Your task to perform on an android device: What's the weather going to be this weekend? Image 0: 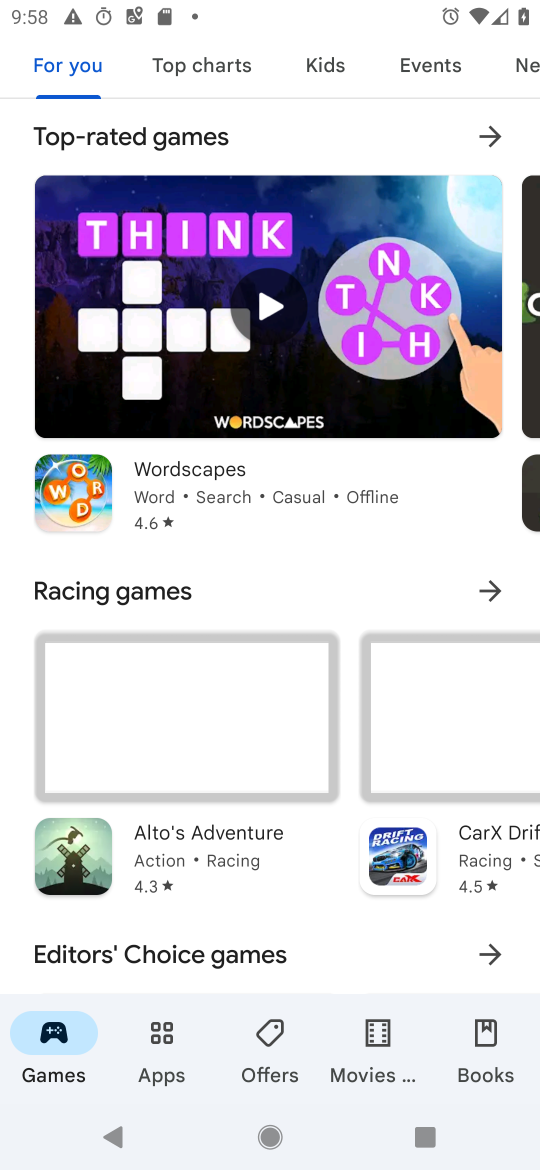
Step 0: press home button
Your task to perform on an android device: What's the weather going to be this weekend? Image 1: 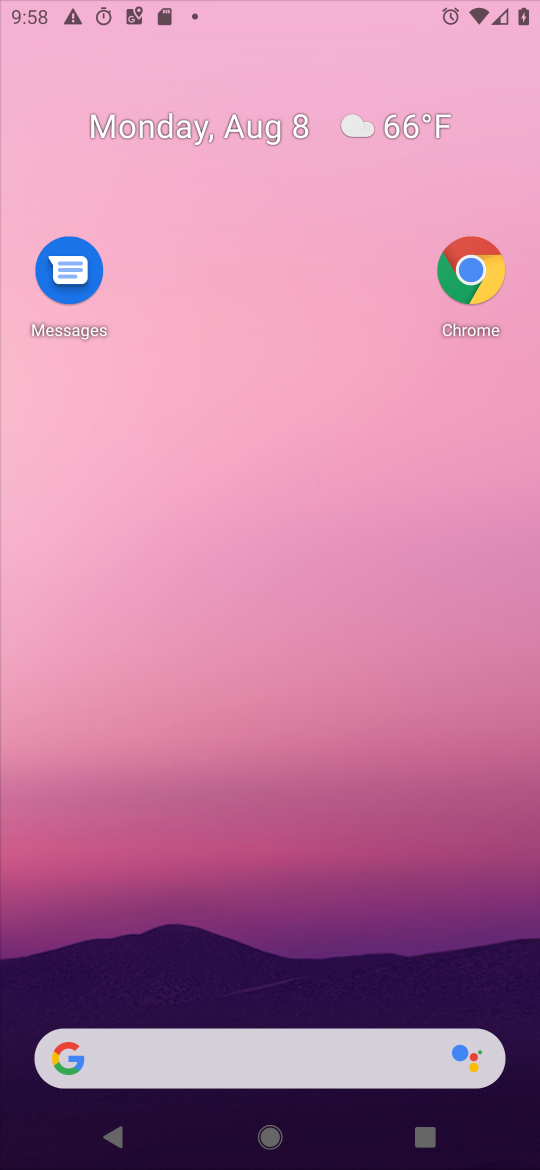
Step 1: drag from (272, 951) to (280, 175)
Your task to perform on an android device: What's the weather going to be this weekend? Image 2: 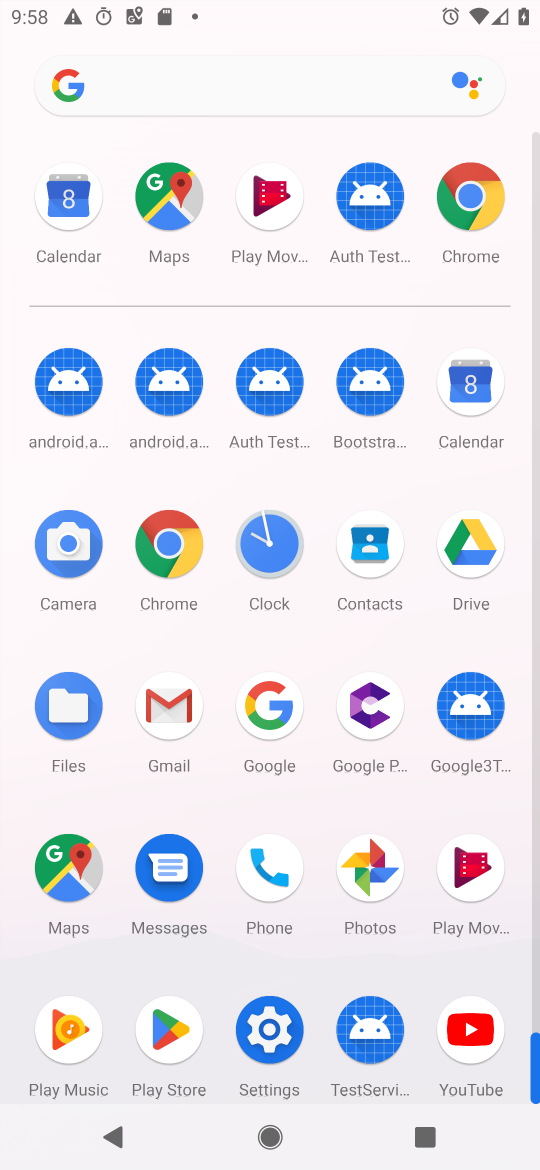
Step 2: click (208, 86)
Your task to perform on an android device: What's the weather going to be this weekend? Image 3: 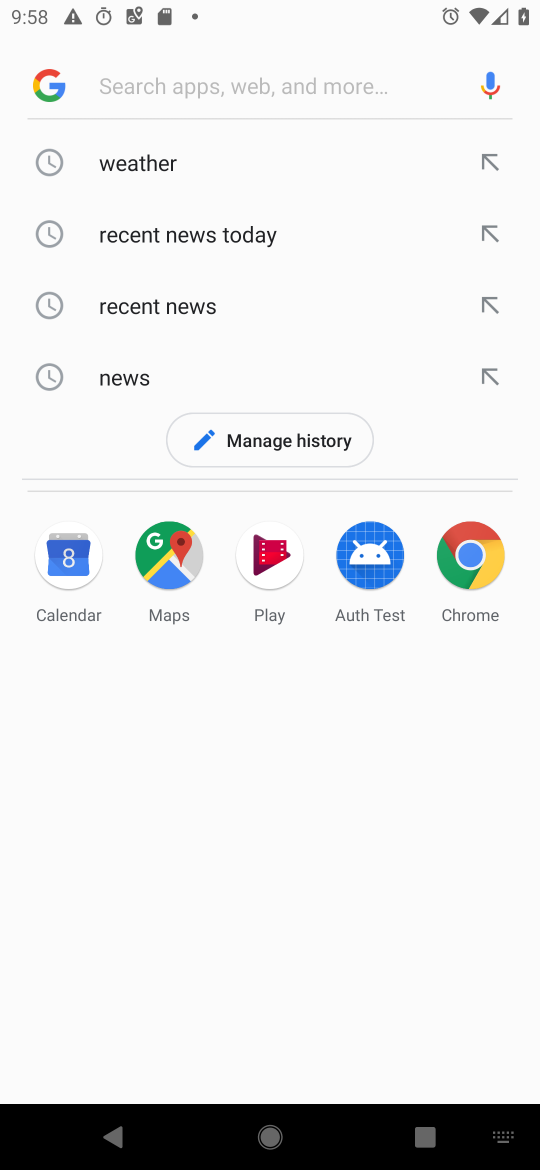
Step 3: type "What's the weather going to be this weekend?"
Your task to perform on an android device: What's the weather going to be this weekend? Image 4: 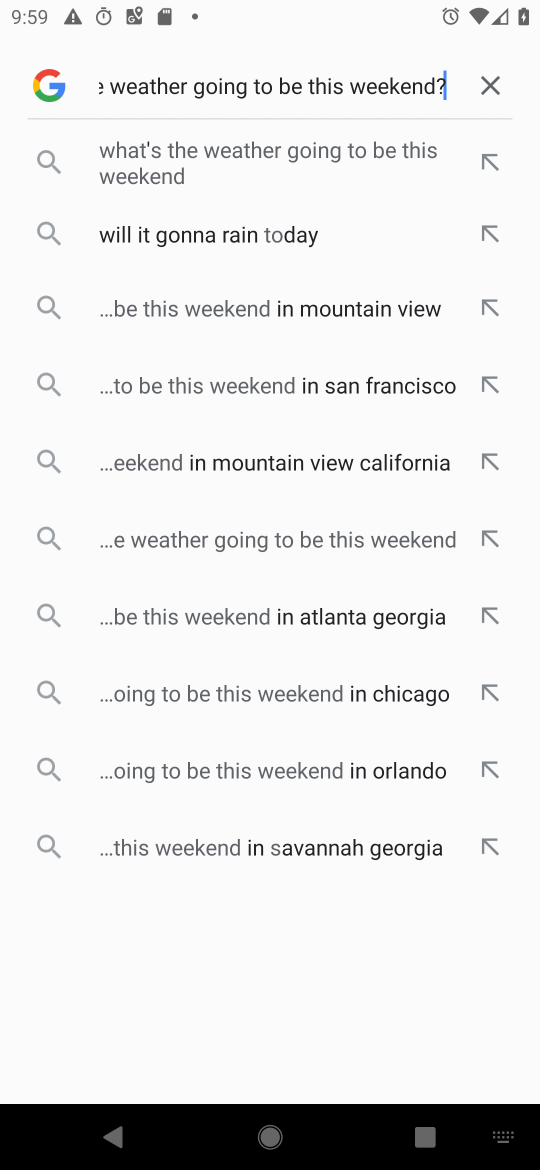
Step 4: click (181, 180)
Your task to perform on an android device: What's the weather going to be this weekend? Image 5: 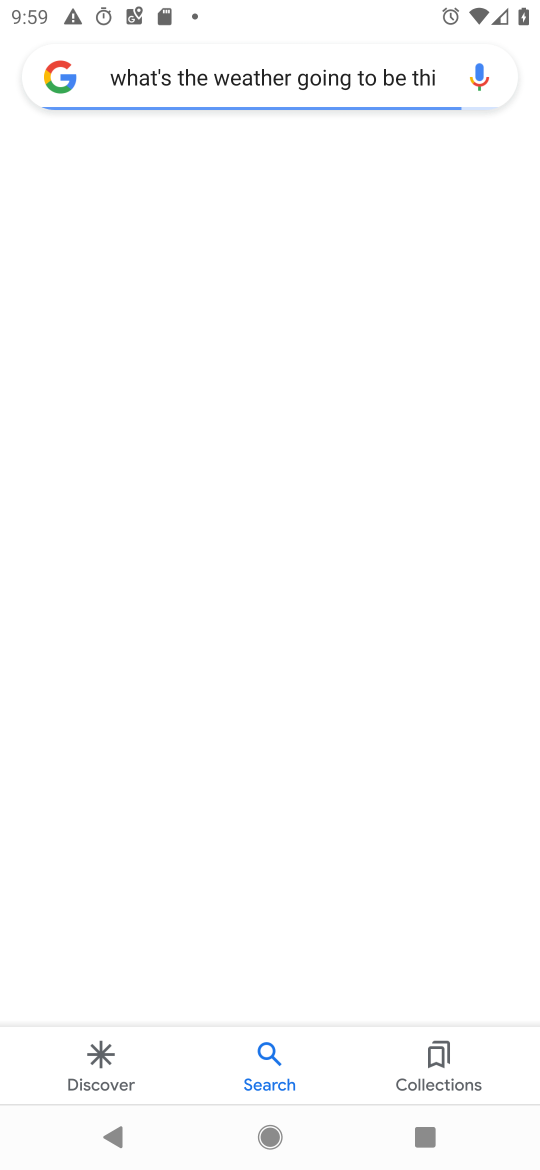
Step 5: drag from (242, 1002) to (381, 300)
Your task to perform on an android device: What's the weather going to be this weekend? Image 6: 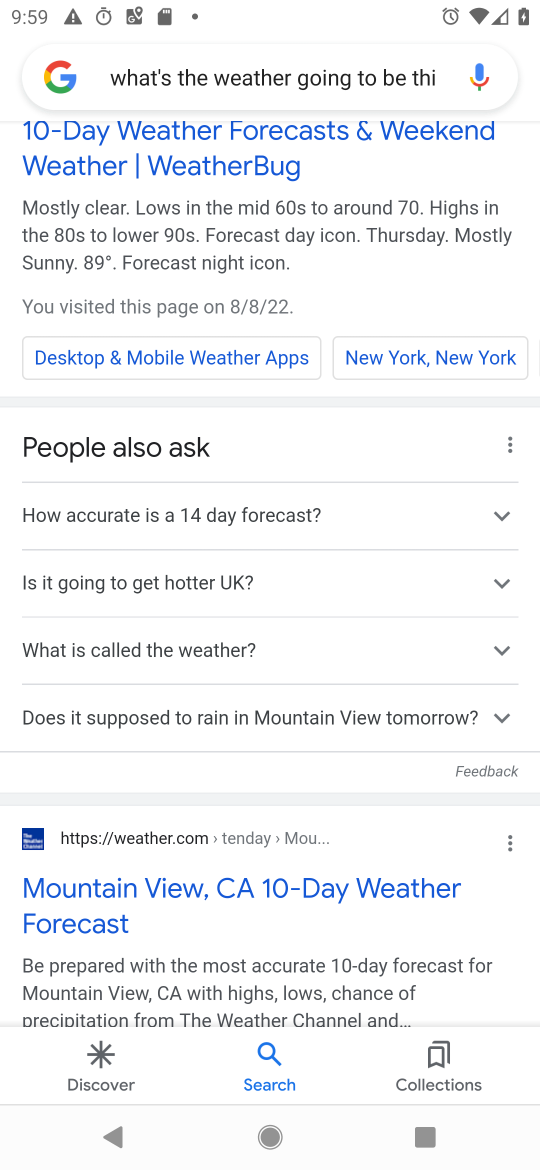
Step 6: drag from (293, 939) to (396, 322)
Your task to perform on an android device: What's the weather going to be this weekend? Image 7: 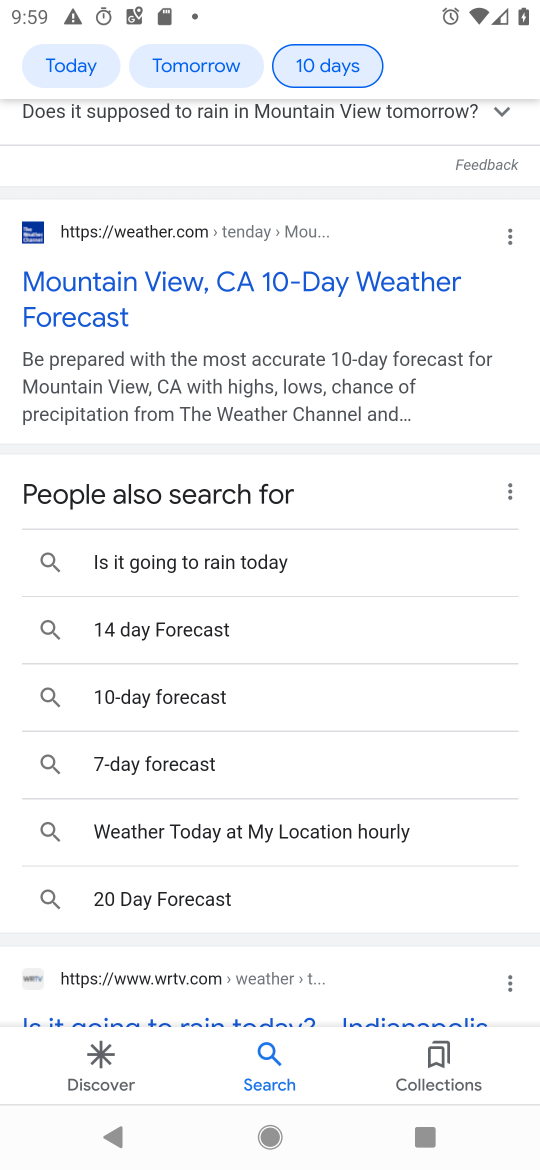
Step 7: drag from (334, 356) to (504, 1149)
Your task to perform on an android device: What's the weather going to be this weekend? Image 8: 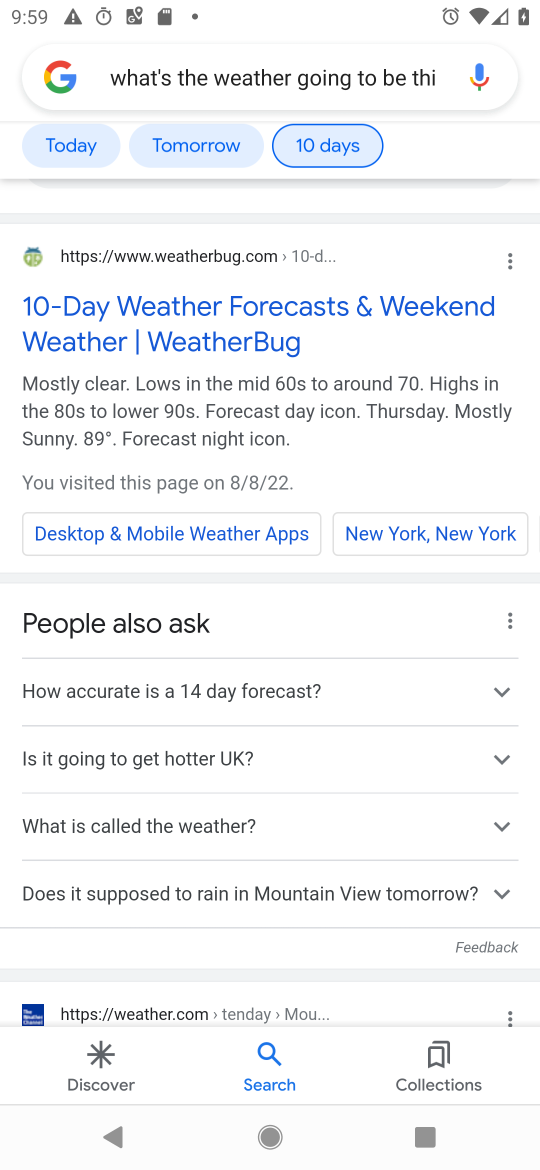
Step 8: click (167, 312)
Your task to perform on an android device: What's the weather going to be this weekend? Image 9: 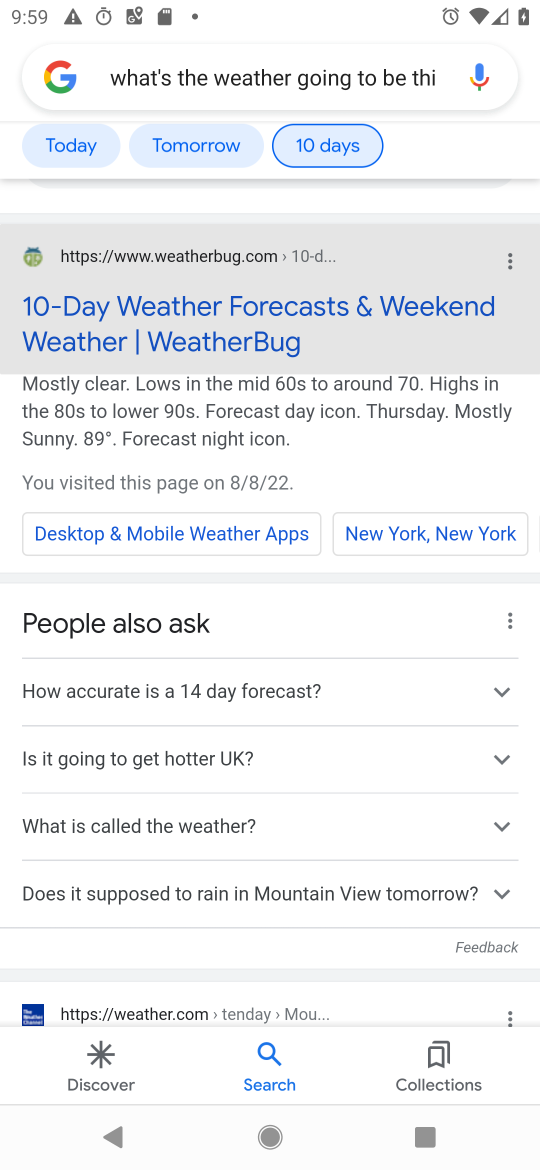
Step 9: task complete